Your task to perform on an android device: Is it going to rain this weekend? Image 0: 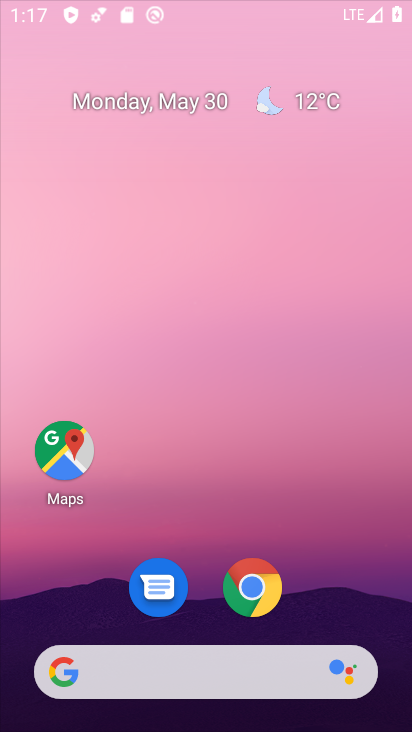
Step 0: drag from (346, 592) to (289, 97)
Your task to perform on an android device: Is it going to rain this weekend? Image 1: 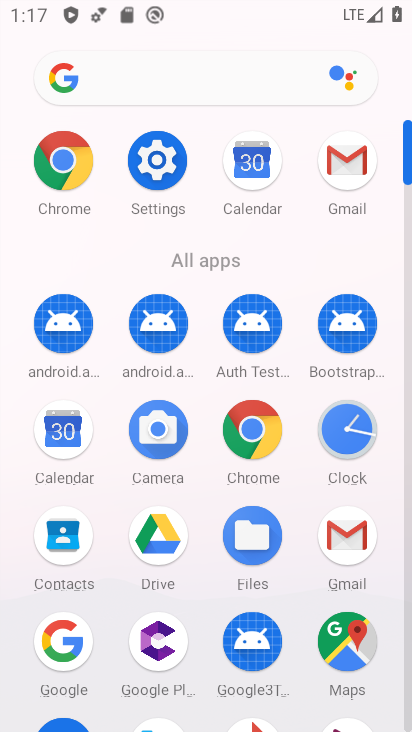
Step 1: click (65, 643)
Your task to perform on an android device: Is it going to rain this weekend? Image 2: 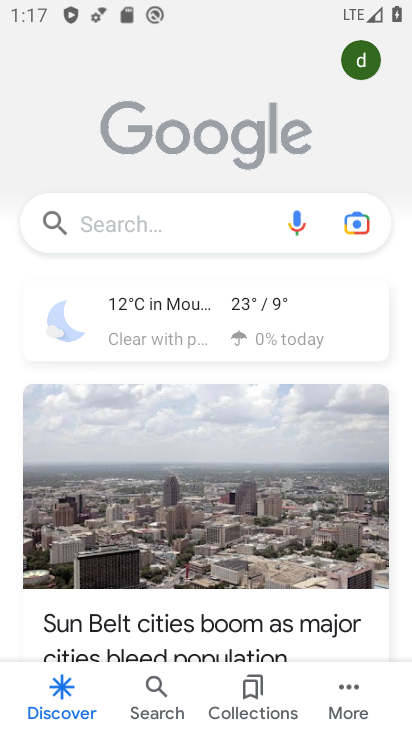
Step 2: click (269, 299)
Your task to perform on an android device: Is it going to rain this weekend? Image 3: 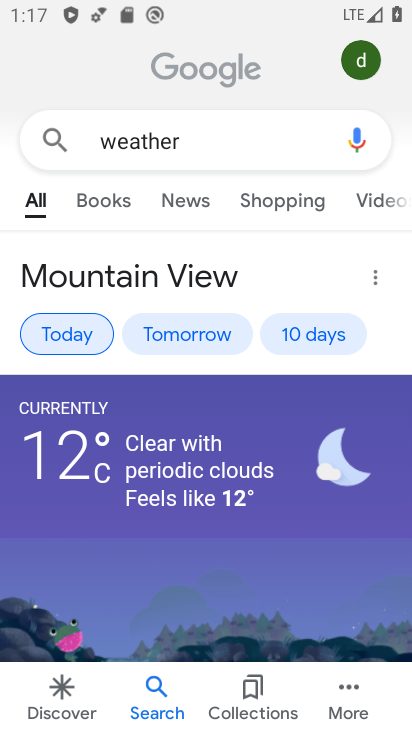
Step 3: click (299, 326)
Your task to perform on an android device: Is it going to rain this weekend? Image 4: 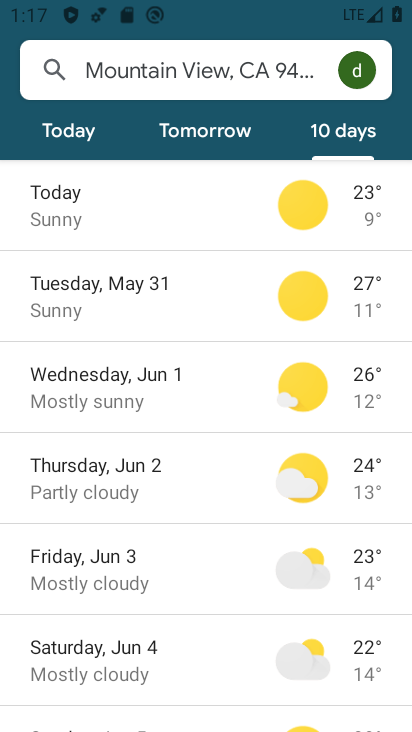
Step 4: task complete